Your task to perform on an android device: Open eBay Image 0: 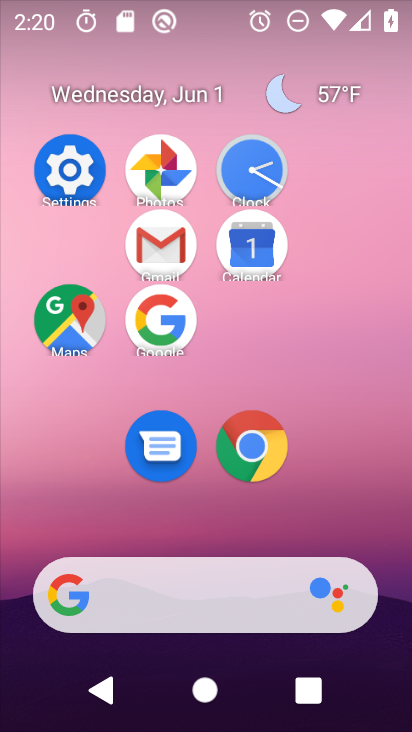
Step 0: click (274, 457)
Your task to perform on an android device: Open eBay Image 1: 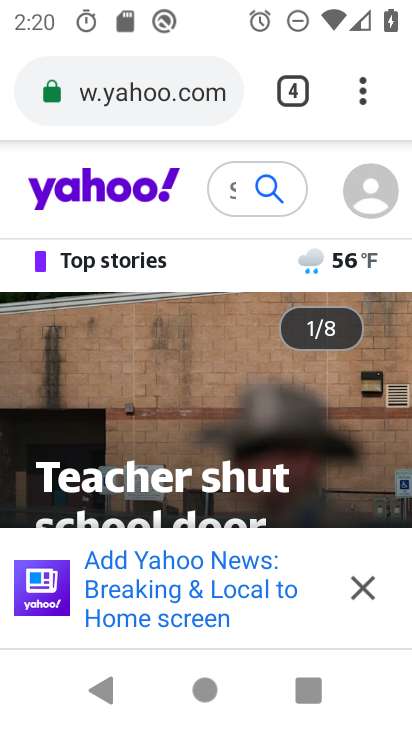
Step 1: click (300, 90)
Your task to perform on an android device: Open eBay Image 2: 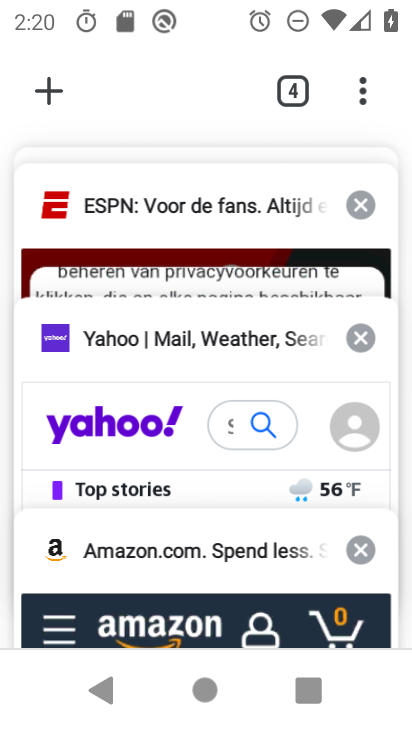
Step 2: click (67, 90)
Your task to perform on an android device: Open eBay Image 3: 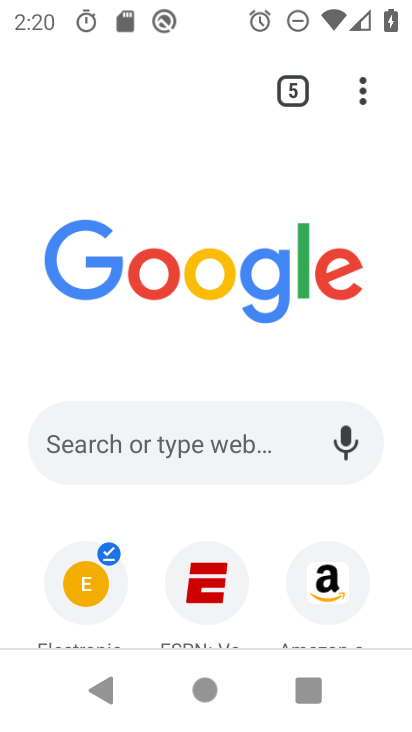
Step 3: drag from (251, 546) to (236, 213)
Your task to perform on an android device: Open eBay Image 4: 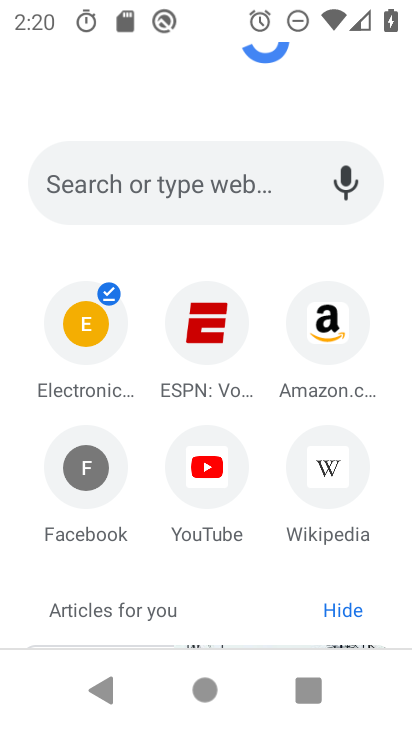
Step 4: click (60, 317)
Your task to perform on an android device: Open eBay Image 5: 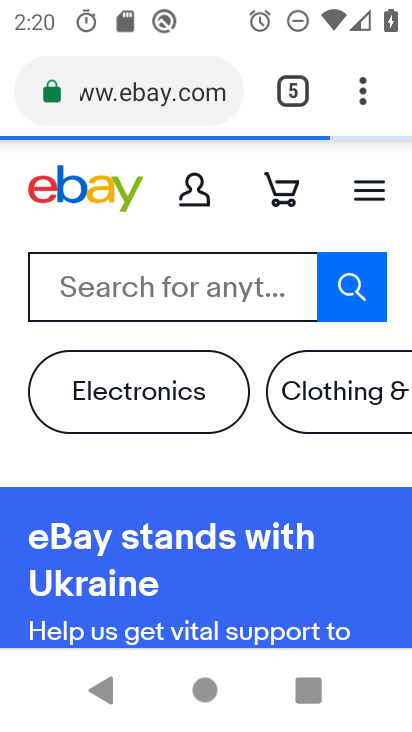
Step 5: task complete